Your task to perform on an android device: Open CNN.com Image 0: 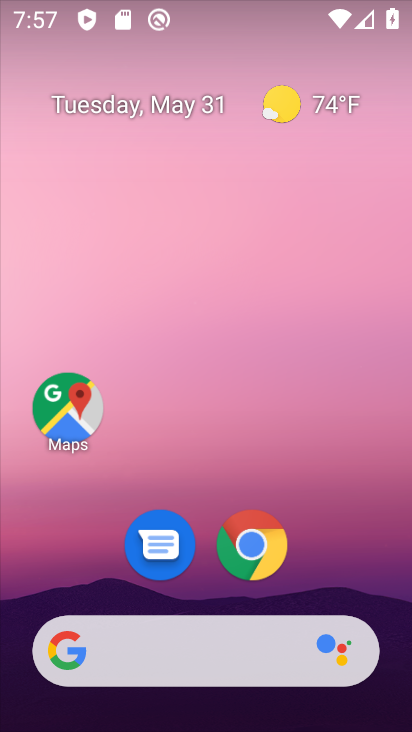
Step 0: drag from (359, 578) to (226, 24)
Your task to perform on an android device: Open CNN.com Image 1: 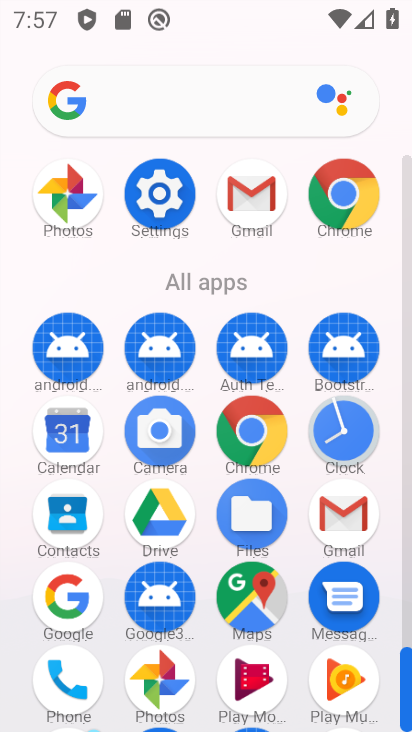
Step 1: drag from (6, 534) to (17, 270)
Your task to perform on an android device: Open CNN.com Image 2: 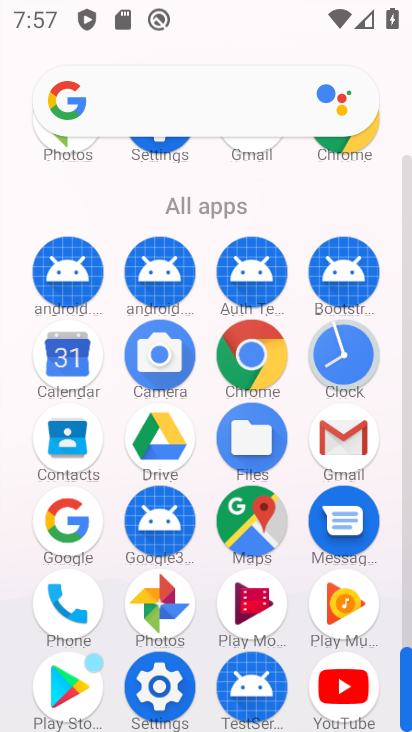
Step 2: click (255, 355)
Your task to perform on an android device: Open CNN.com Image 3: 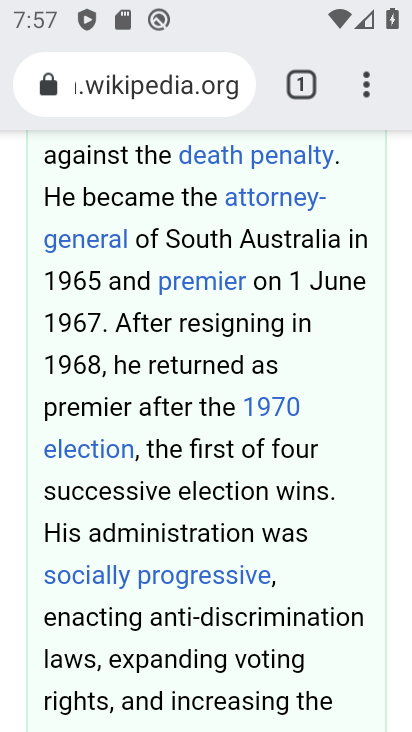
Step 3: click (157, 76)
Your task to perform on an android device: Open CNN.com Image 4: 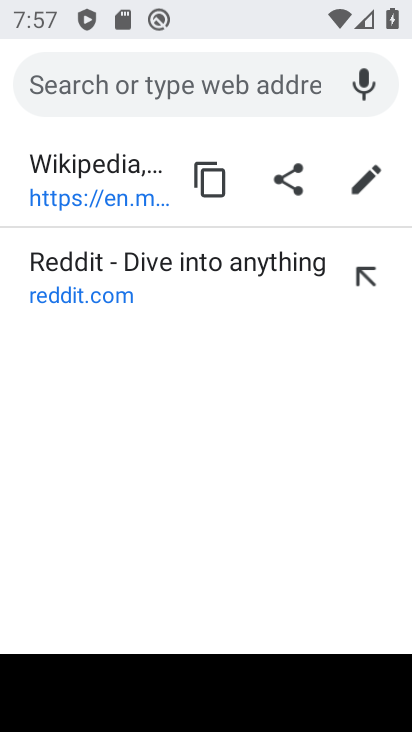
Step 4: type "CNN.com"
Your task to perform on an android device: Open CNN.com Image 5: 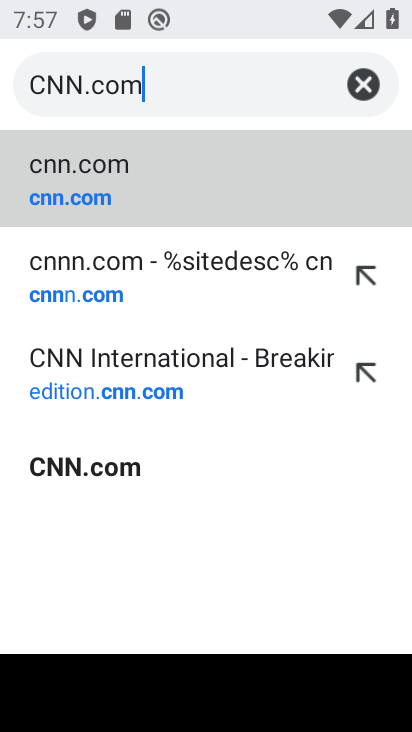
Step 5: type ""
Your task to perform on an android device: Open CNN.com Image 6: 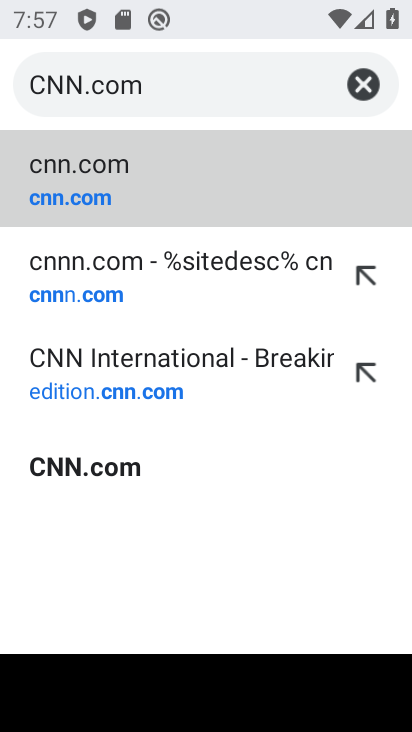
Step 6: click (107, 177)
Your task to perform on an android device: Open CNN.com Image 7: 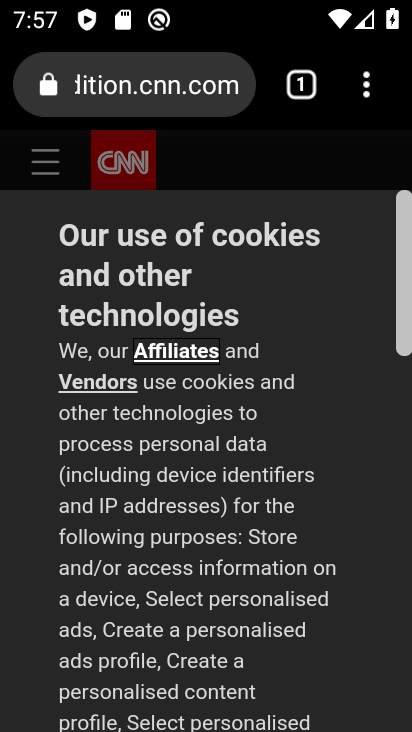
Step 7: task complete